Your task to perform on an android device: Open eBay Image 0: 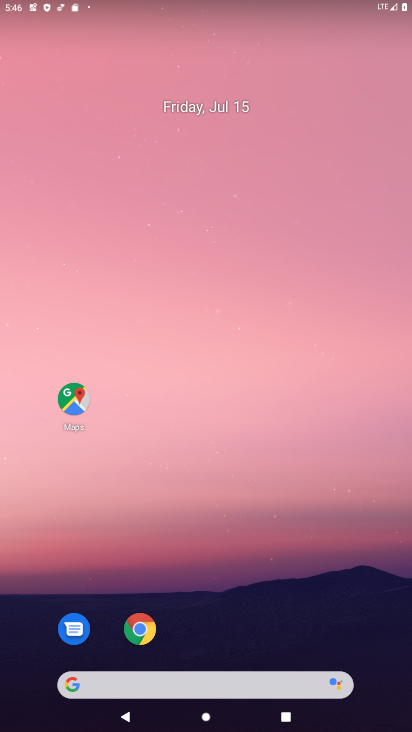
Step 0: press home button
Your task to perform on an android device: Open eBay Image 1: 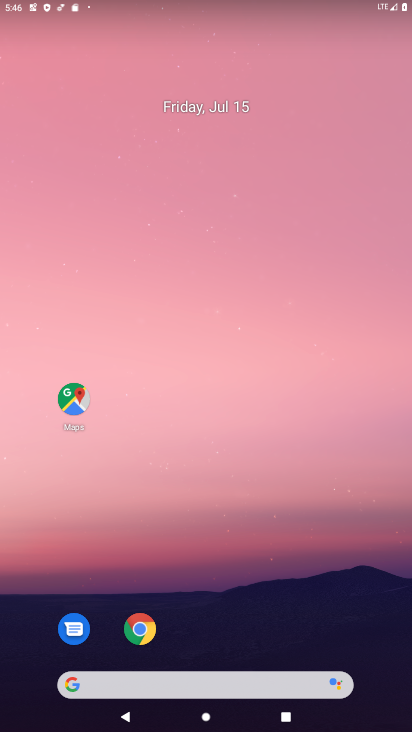
Step 1: click (66, 681)
Your task to perform on an android device: Open eBay Image 2: 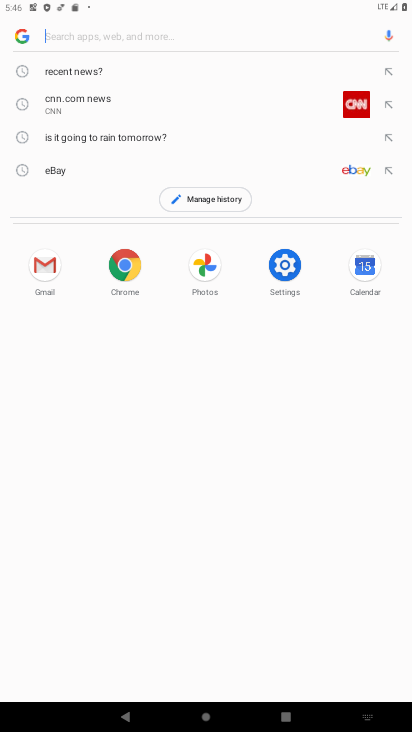
Step 2: click (52, 175)
Your task to perform on an android device: Open eBay Image 3: 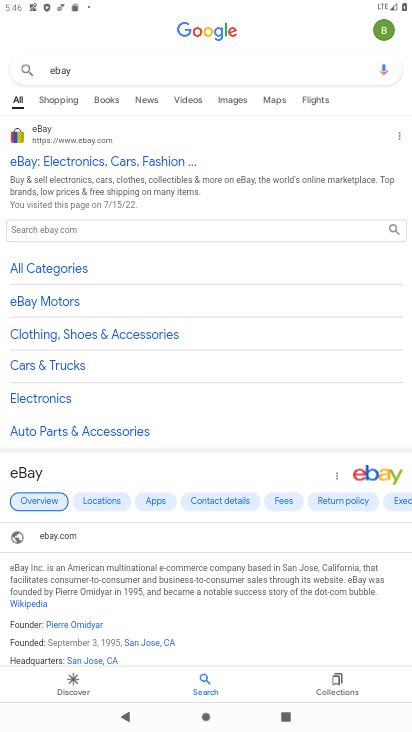
Step 3: click (82, 157)
Your task to perform on an android device: Open eBay Image 4: 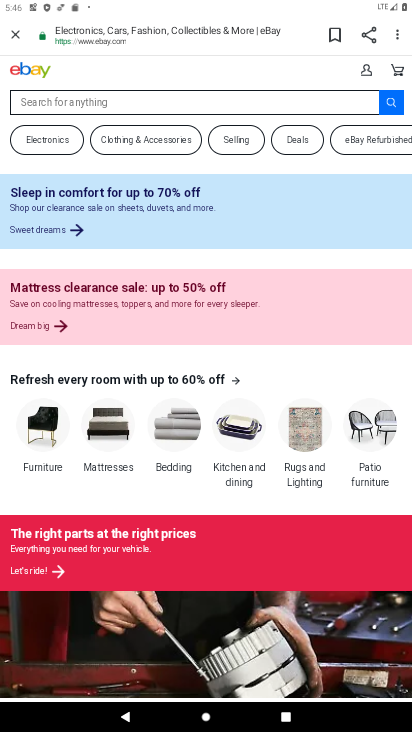
Step 4: task complete